Your task to perform on an android device: Play the new Drake video on YouTube Image 0: 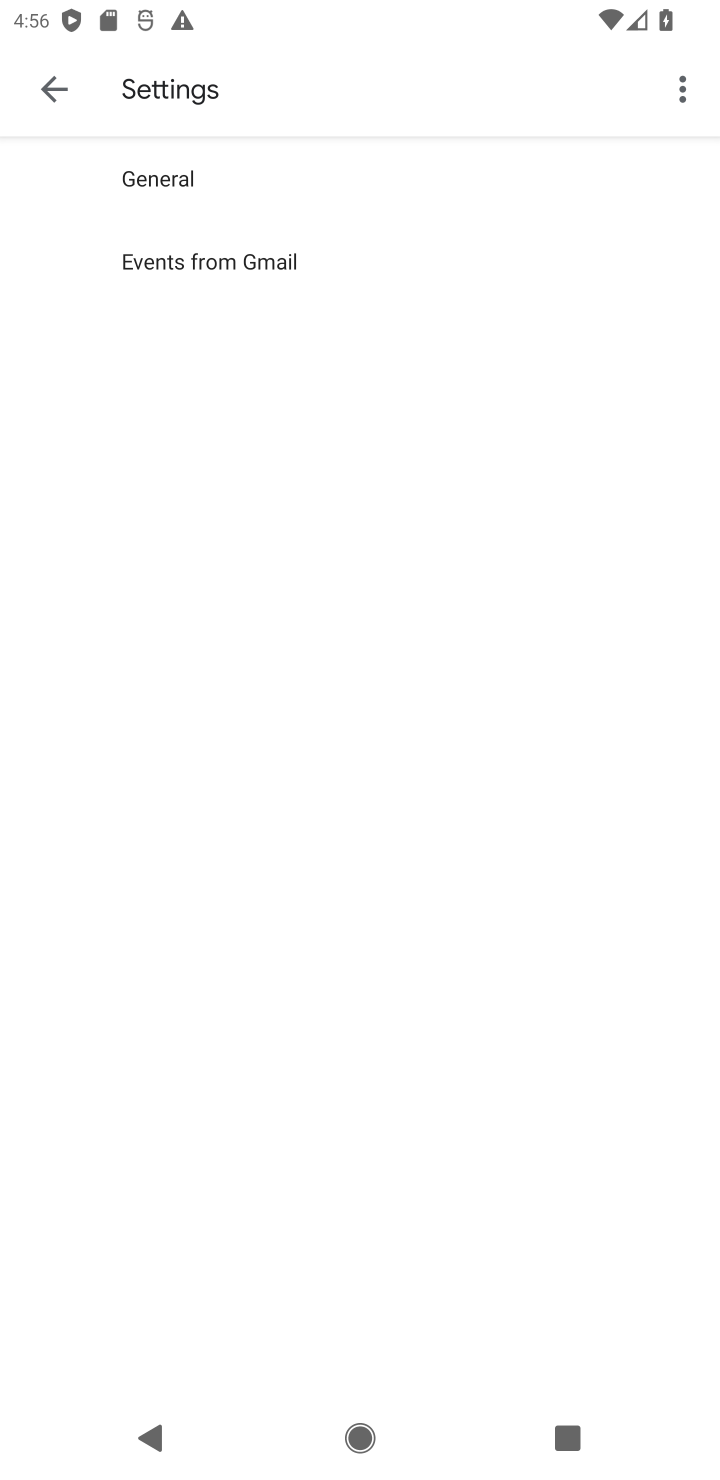
Step 0: press home button
Your task to perform on an android device: Play the new Drake video on YouTube Image 1: 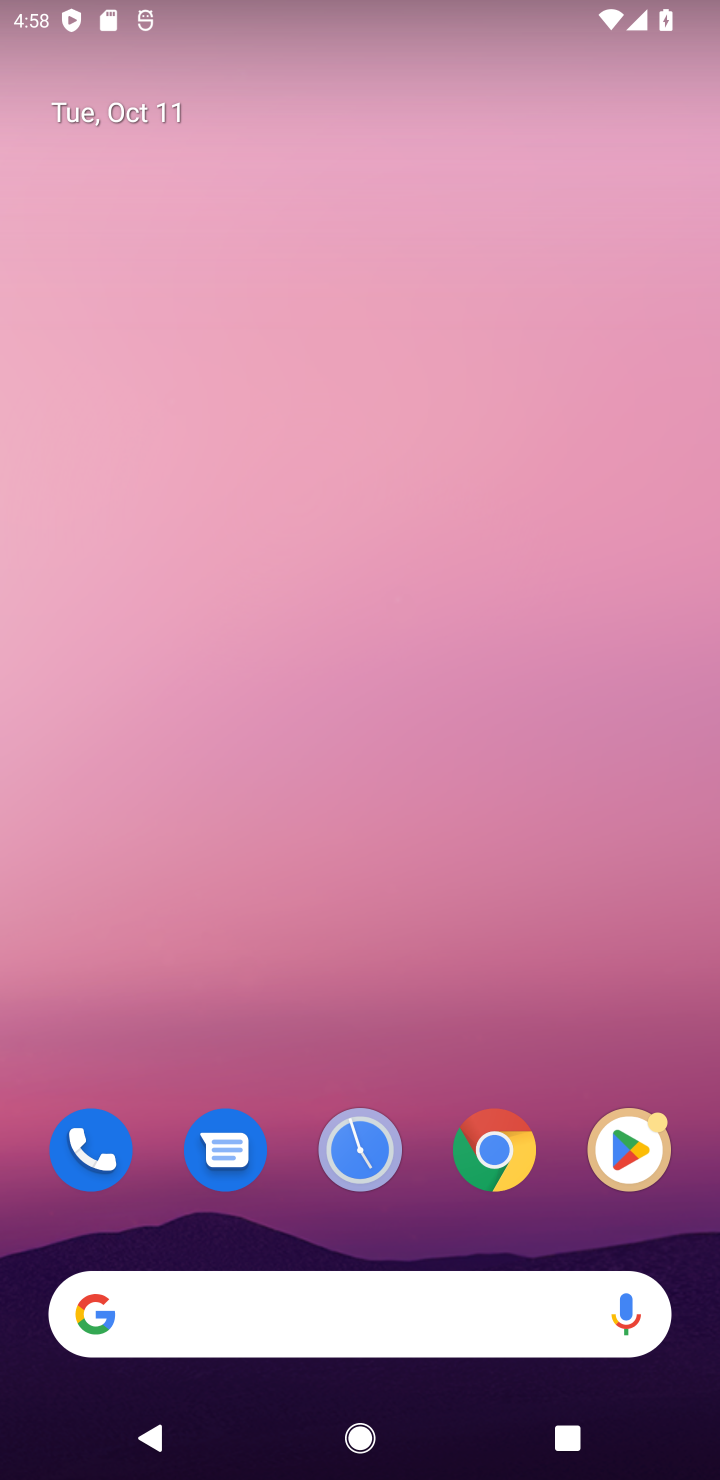
Step 1: drag from (584, 1126) to (613, 22)
Your task to perform on an android device: Play the new Drake video on YouTube Image 2: 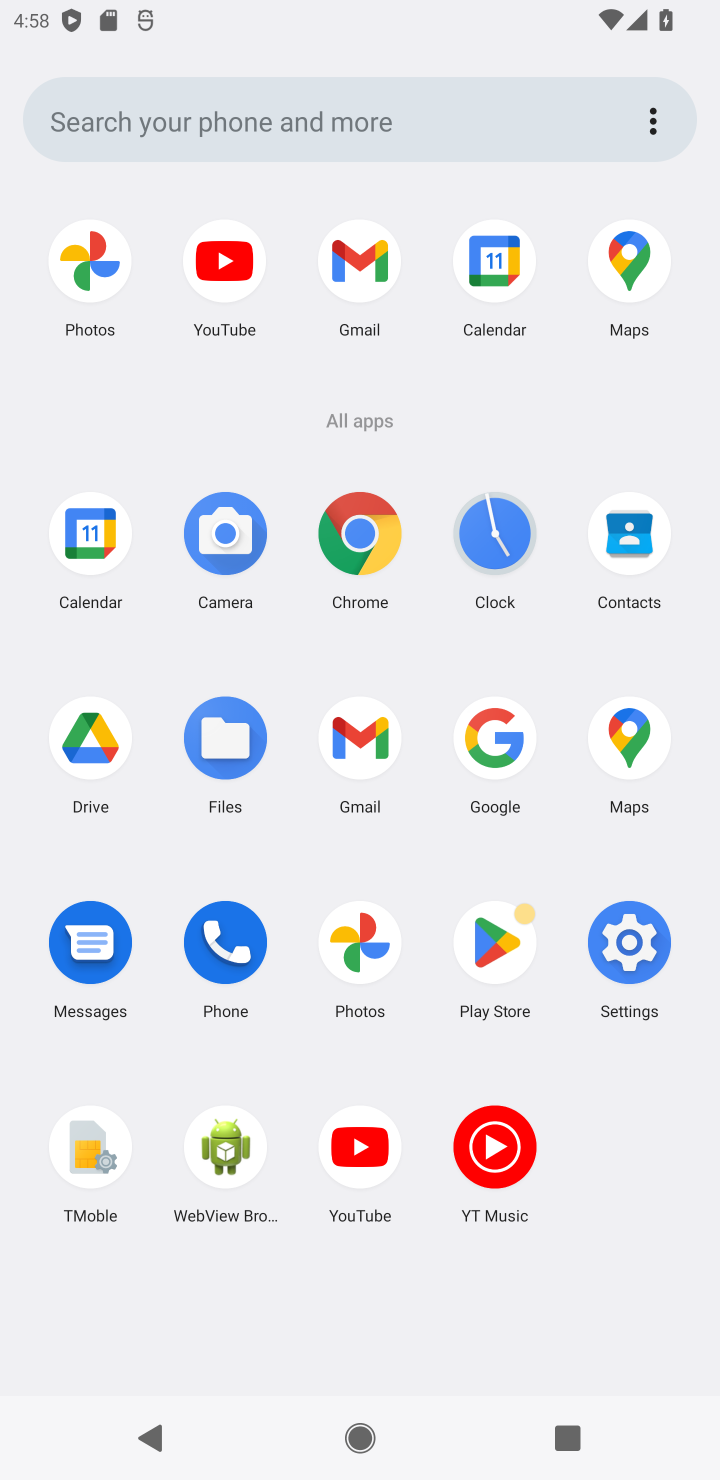
Step 2: click (234, 275)
Your task to perform on an android device: Play the new Drake video on YouTube Image 3: 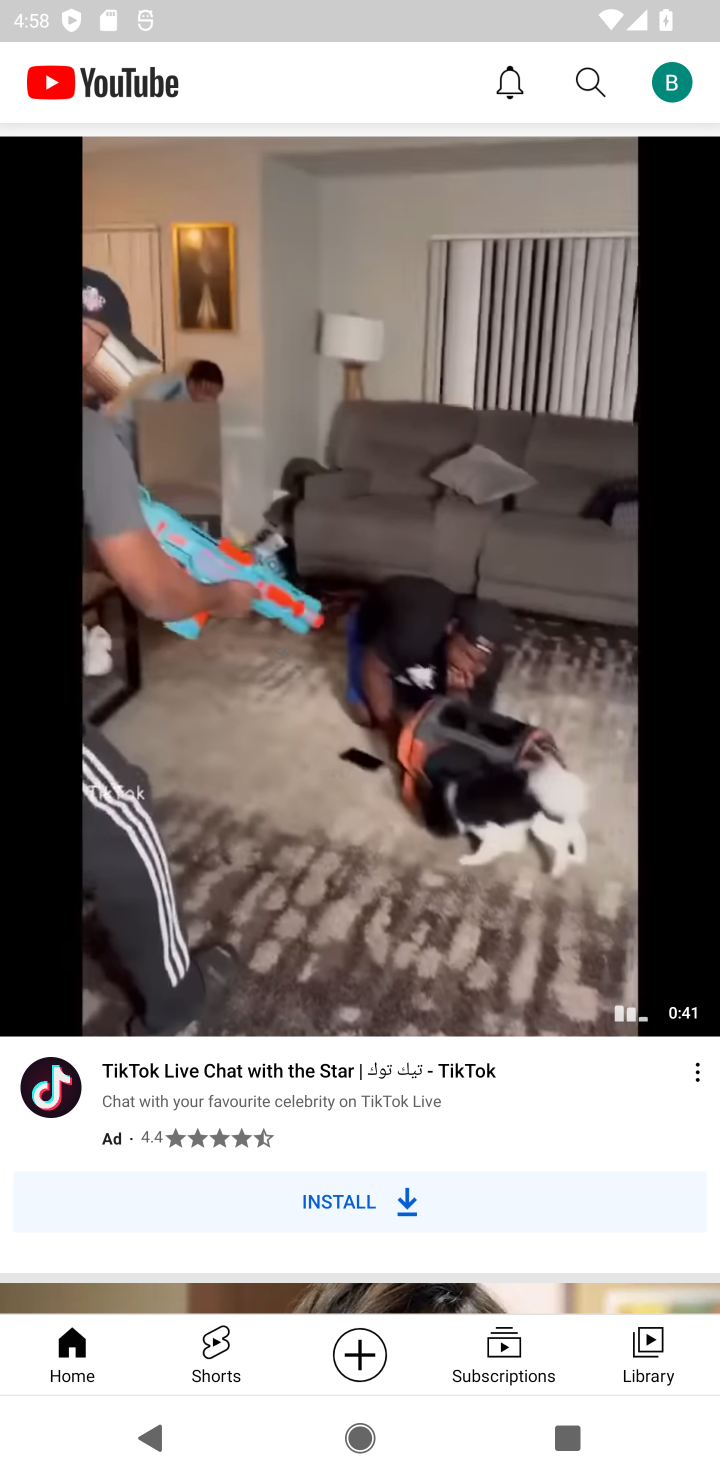
Step 3: click (586, 72)
Your task to perform on an android device: Play the new Drake video on YouTube Image 4: 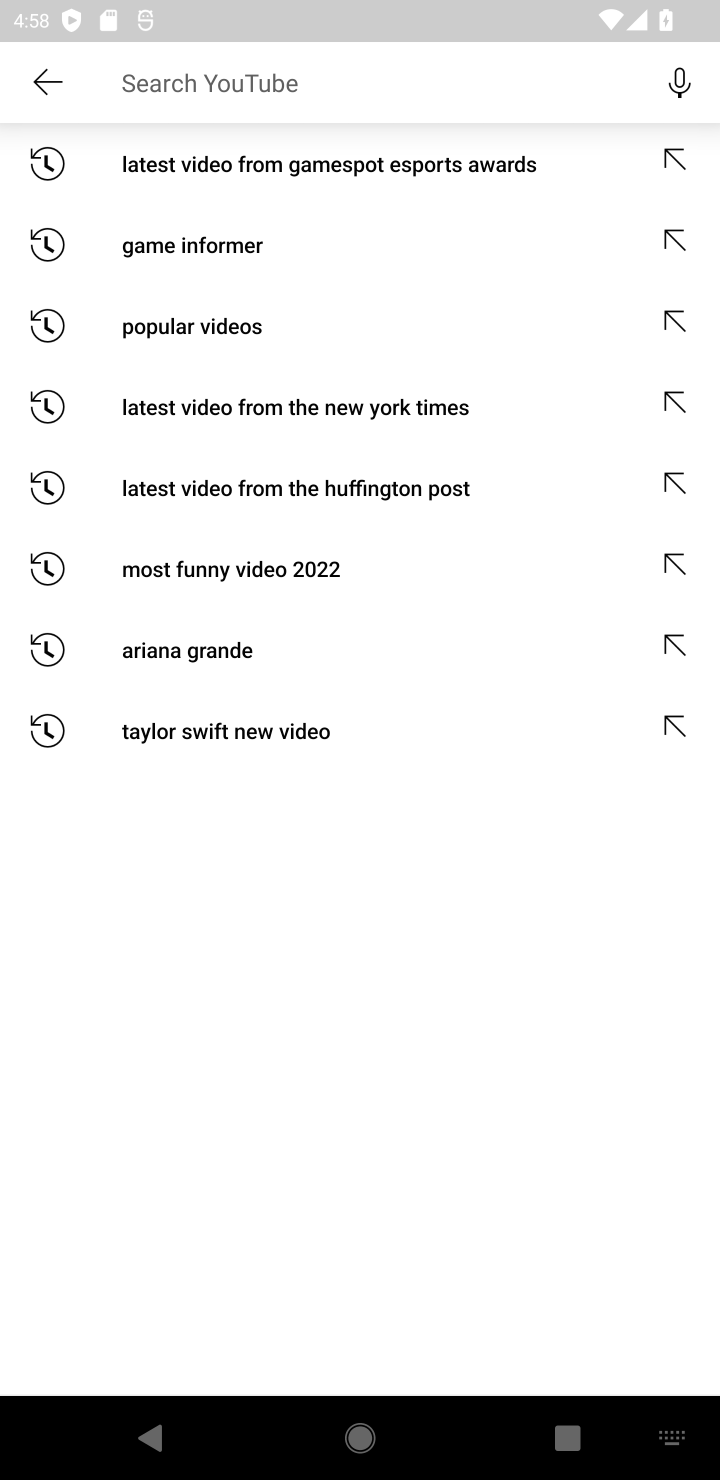
Step 4: type "new Drake video"
Your task to perform on an android device: Play the new Drake video on YouTube Image 5: 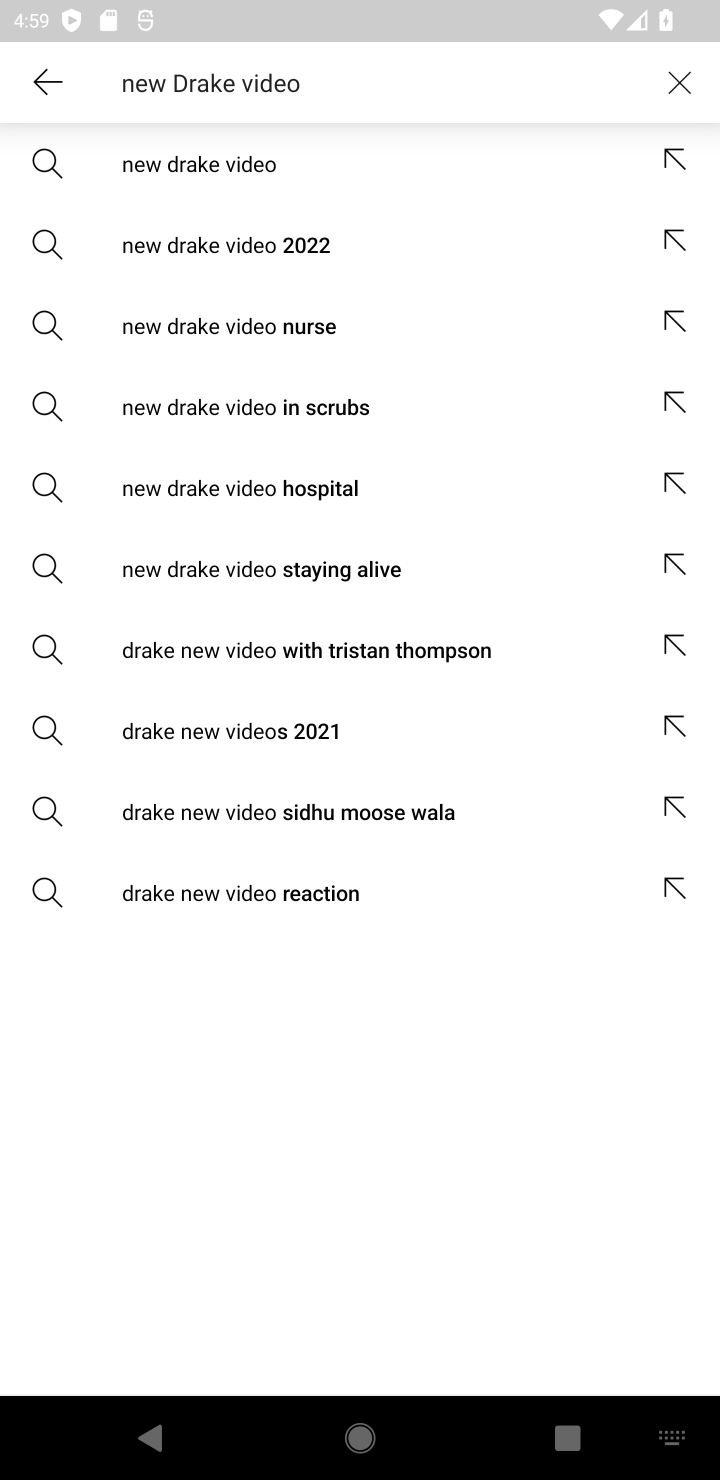
Step 5: click (206, 174)
Your task to perform on an android device: Play the new Drake video on YouTube Image 6: 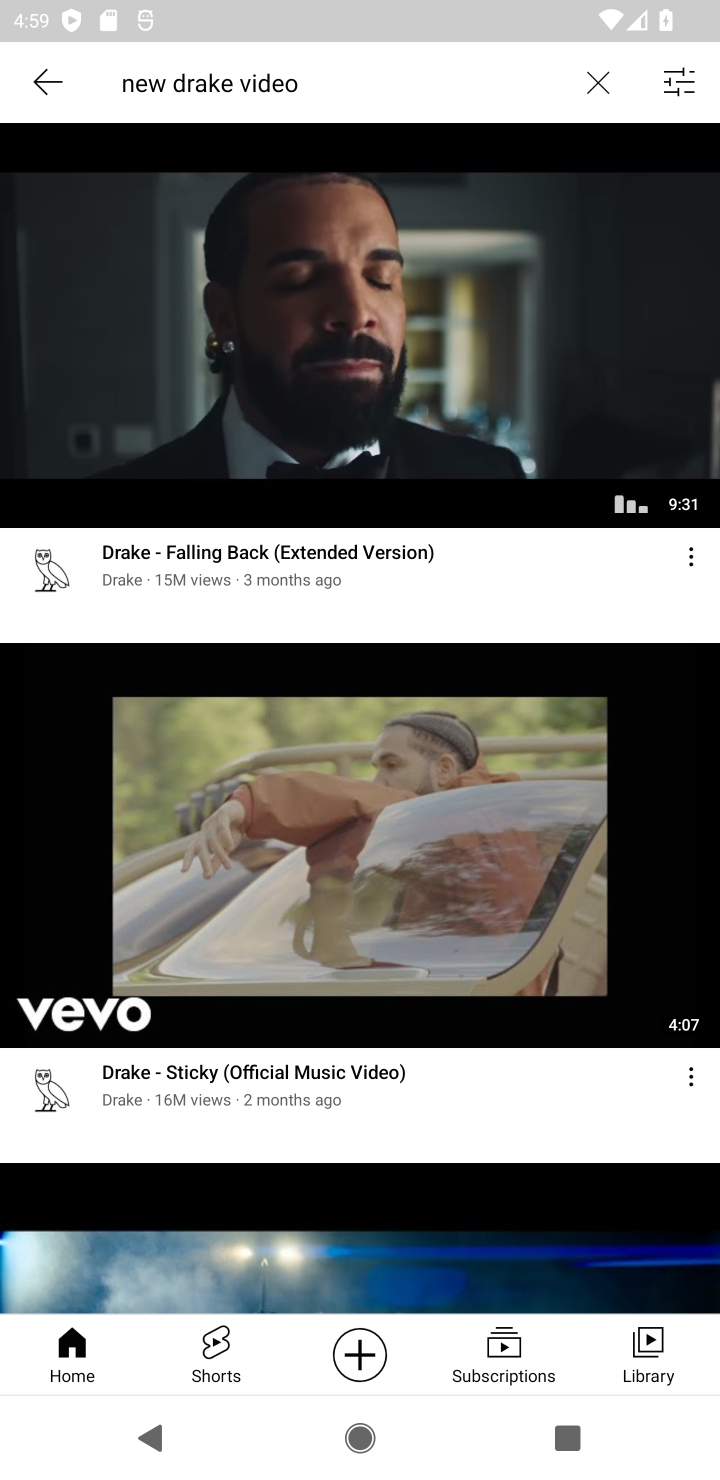
Step 6: click (296, 398)
Your task to perform on an android device: Play the new Drake video on YouTube Image 7: 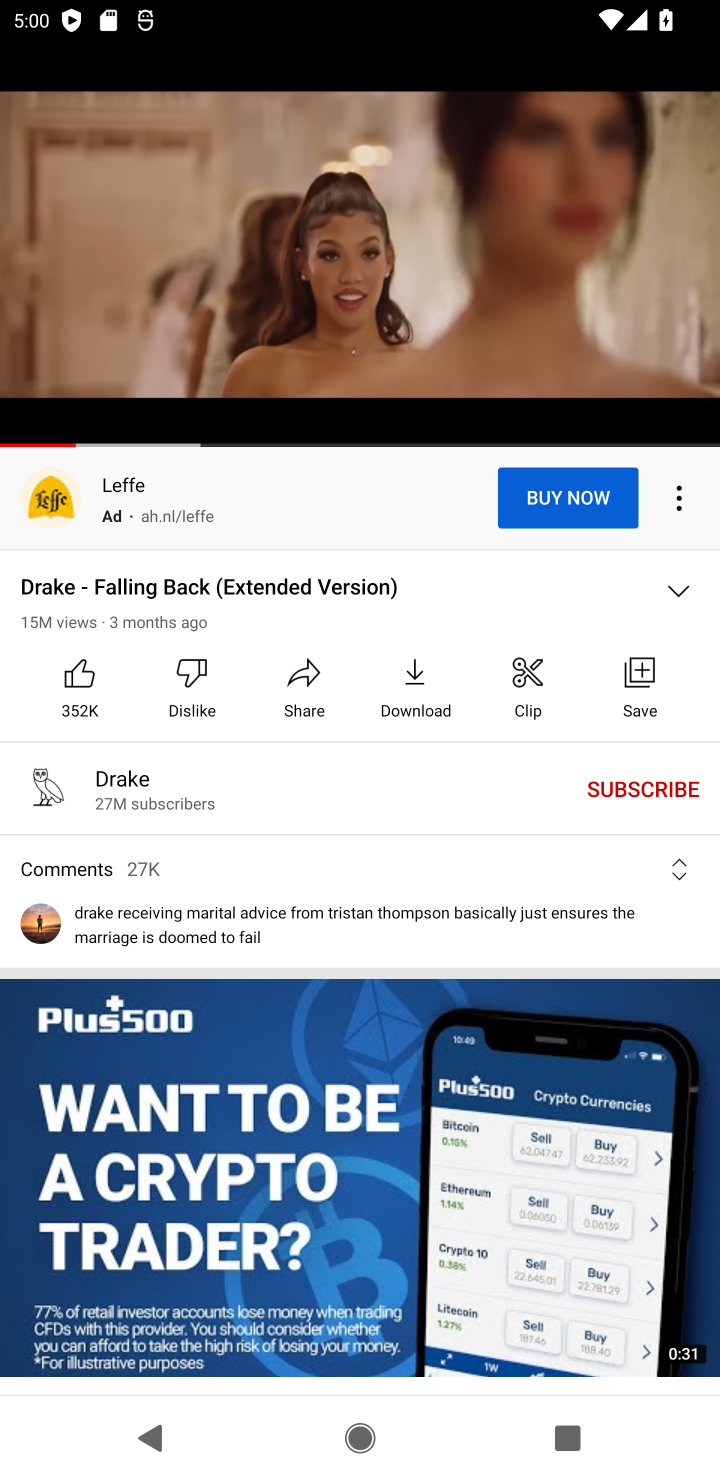
Step 7: click (391, 294)
Your task to perform on an android device: Play the new Drake video on YouTube Image 8: 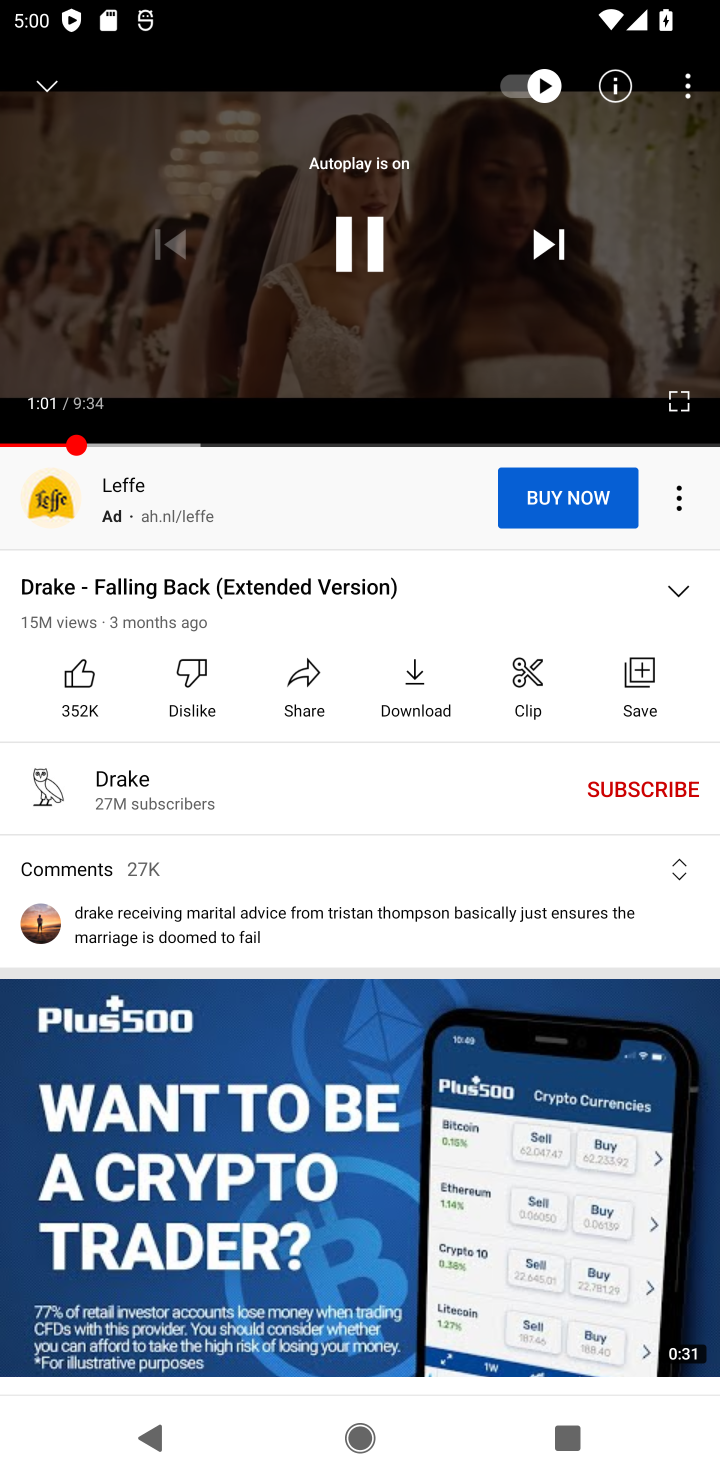
Step 8: click (383, 268)
Your task to perform on an android device: Play the new Drake video on YouTube Image 9: 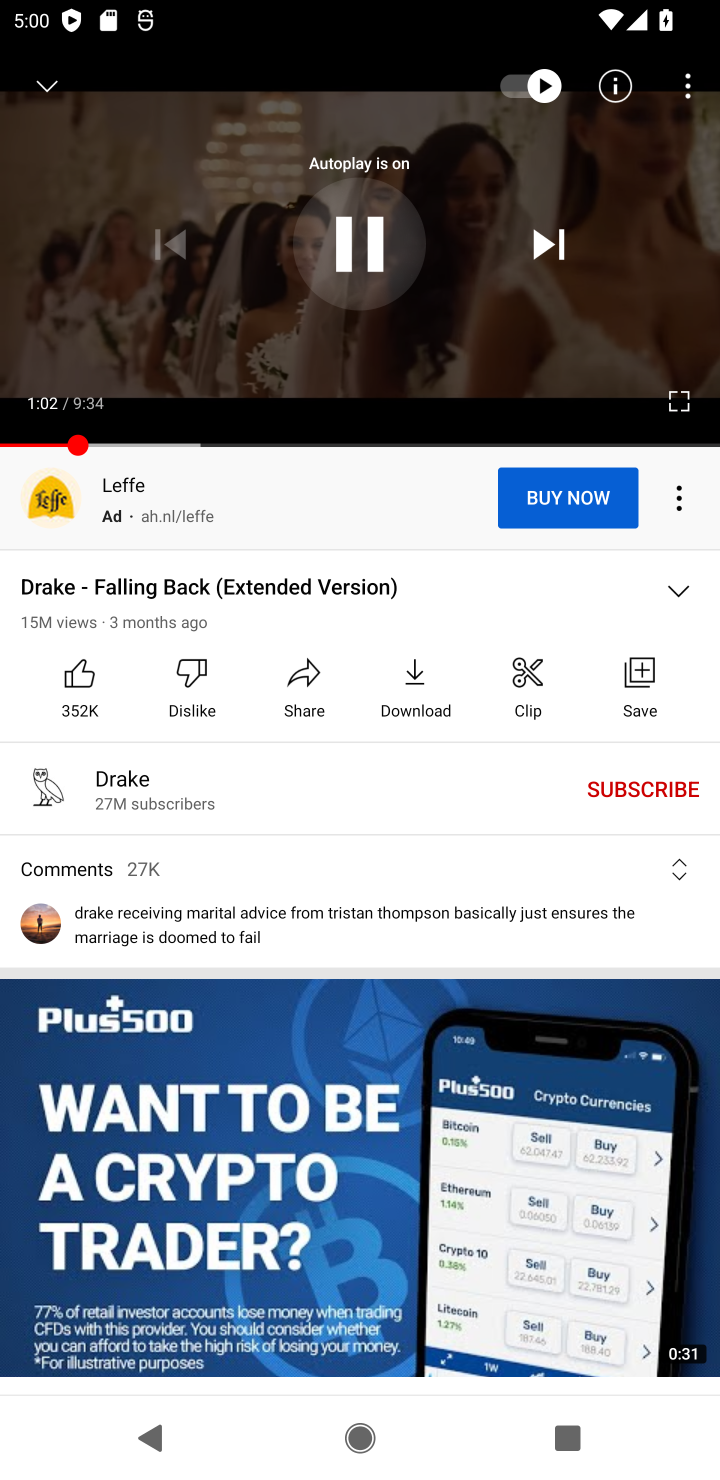
Step 9: click (379, 264)
Your task to perform on an android device: Play the new Drake video on YouTube Image 10: 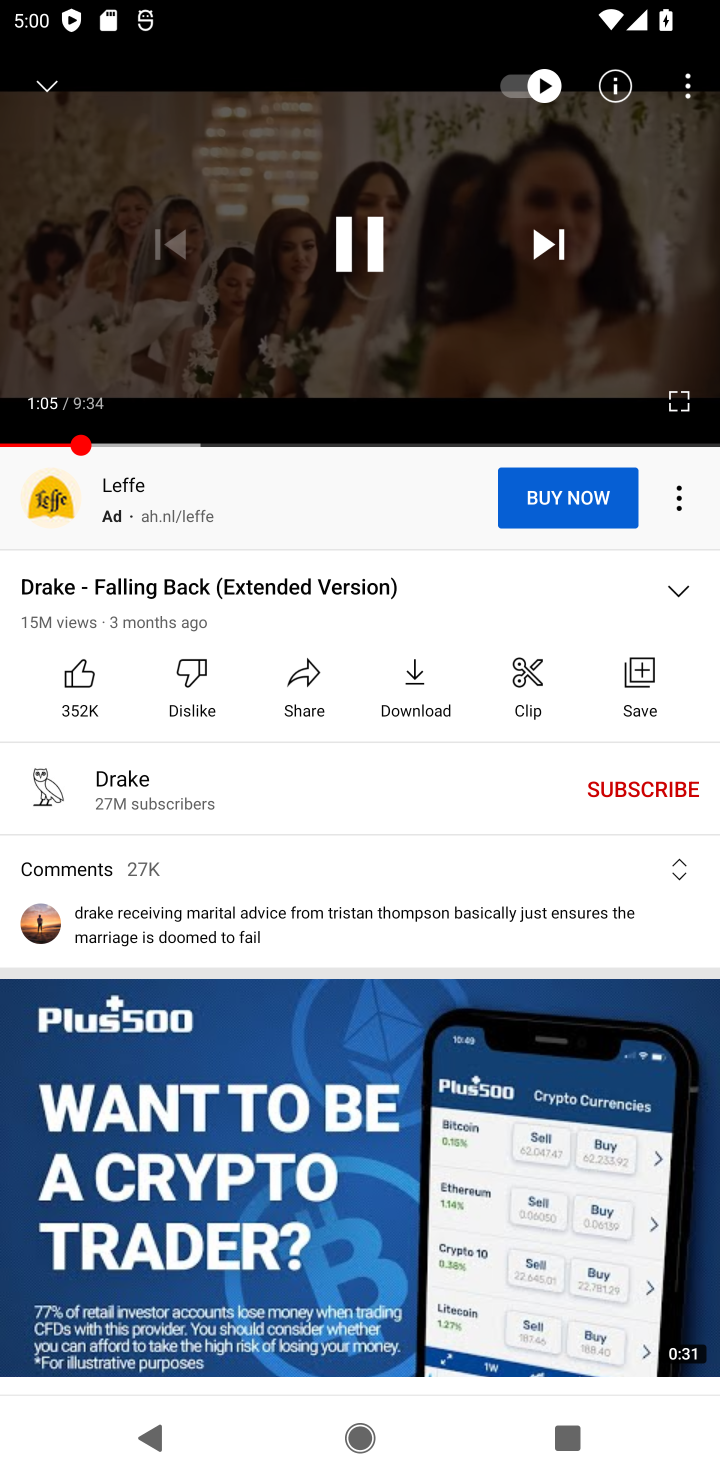
Step 10: click (361, 233)
Your task to perform on an android device: Play the new Drake video on YouTube Image 11: 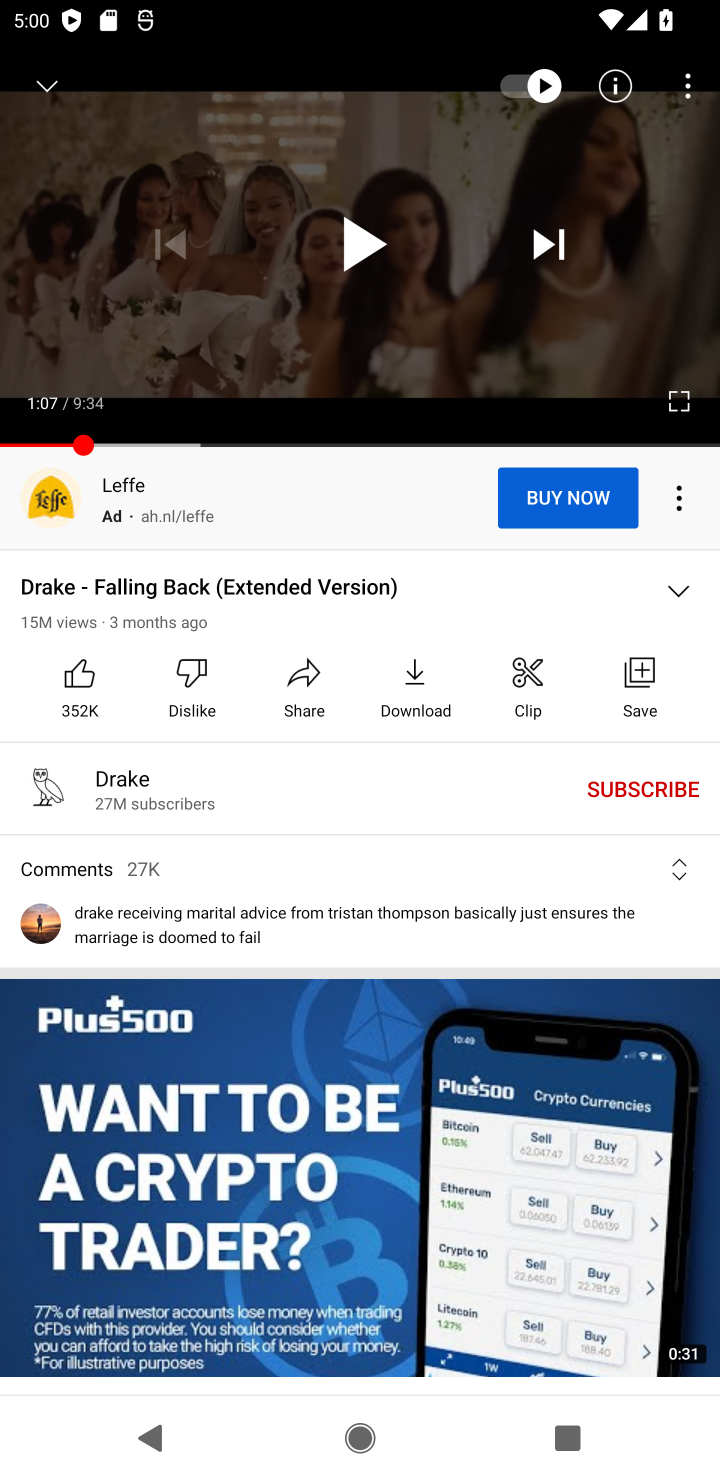
Step 11: task complete